Your task to perform on an android device: Open Google Image 0: 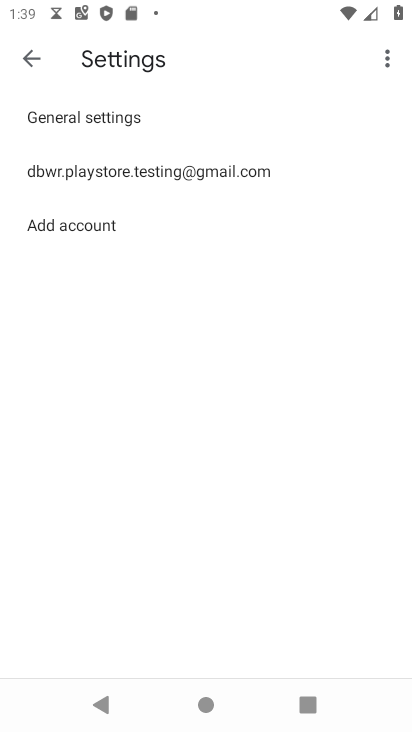
Step 0: press home button
Your task to perform on an android device: Open Google Image 1: 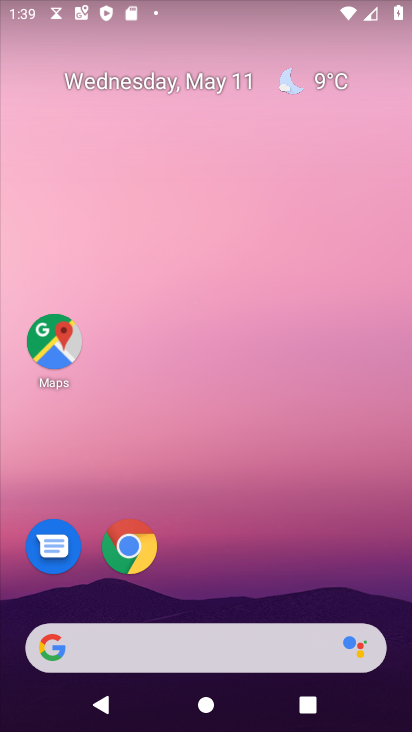
Step 1: drag from (284, 614) to (288, 156)
Your task to perform on an android device: Open Google Image 2: 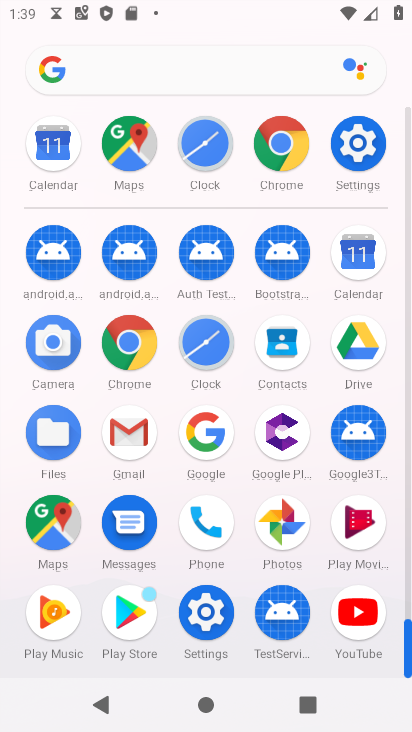
Step 2: click (139, 339)
Your task to perform on an android device: Open Google Image 3: 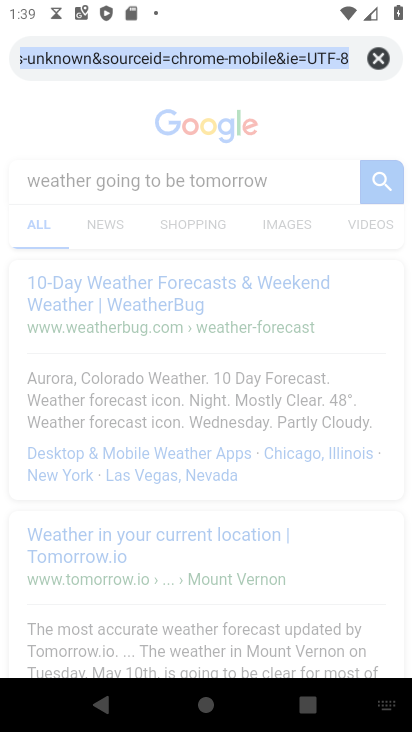
Step 3: click (378, 64)
Your task to perform on an android device: Open Google Image 4: 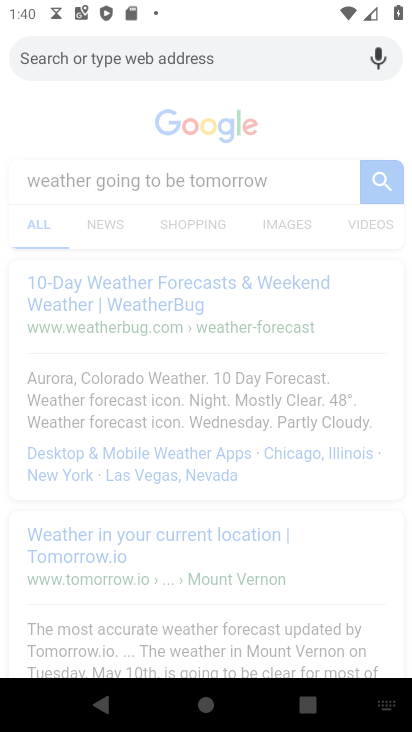
Step 4: task complete